Your task to perform on an android device: Open Maps and search for coffee Image 0: 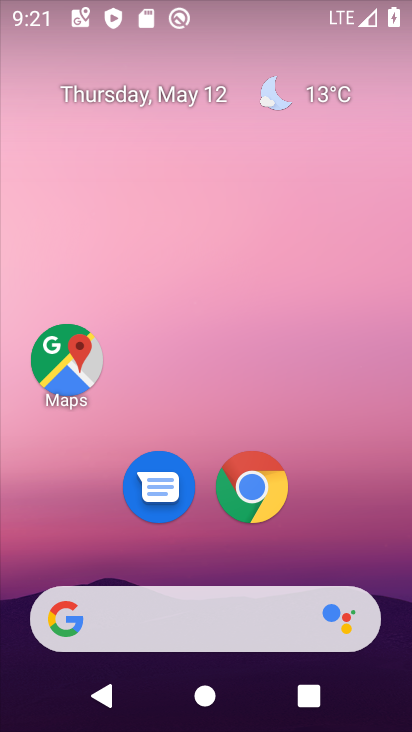
Step 0: click (65, 364)
Your task to perform on an android device: Open Maps and search for coffee Image 1: 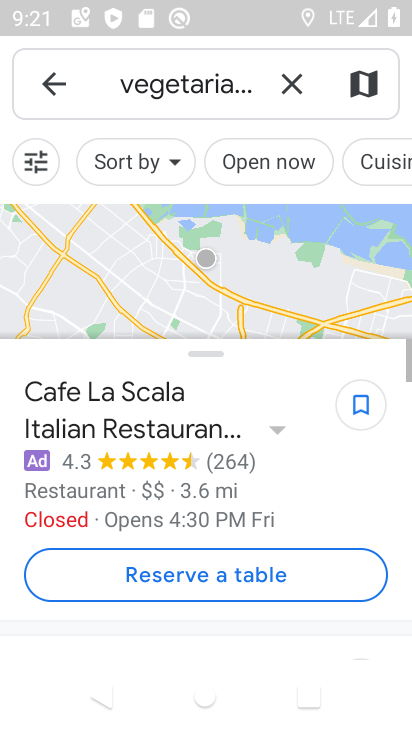
Step 1: click (301, 84)
Your task to perform on an android device: Open Maps and search for coffee Image 2: 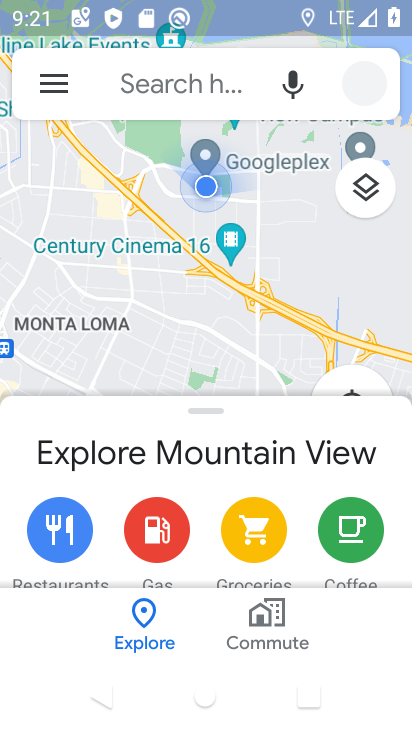
Step 2: click (159, 92)
Your task to perform on an android device: Open Maps and search for coffee Image 3: 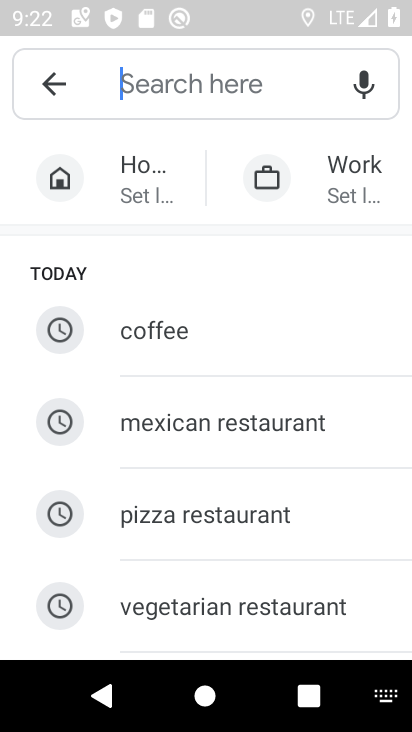
Step 3: type "coffee"
Your task to perform on an android device: Open Maps and search for coffee Image 4: 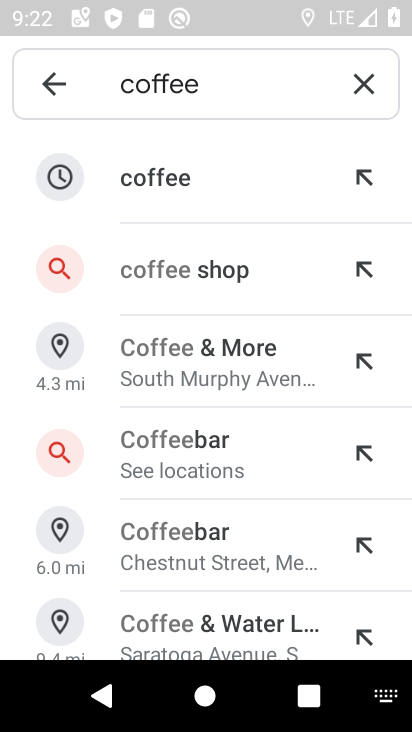
Step 4: click (198, 184)
Your task to perform on an android device: Open Maps and search for coffee Image 5: 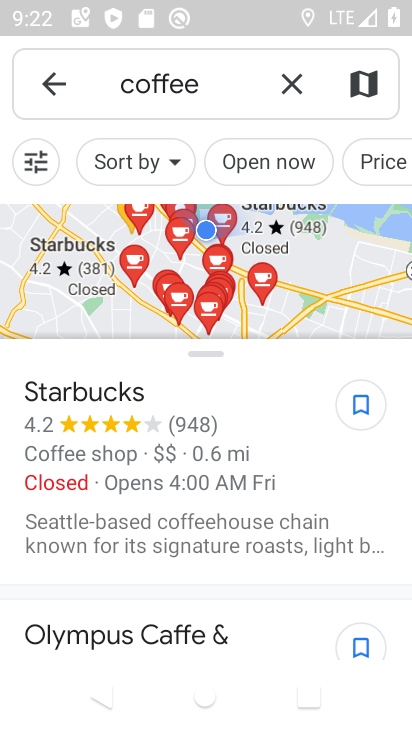
Step 5: task complete